Your task to perform on an android device: Open Google Chrome Image 0: 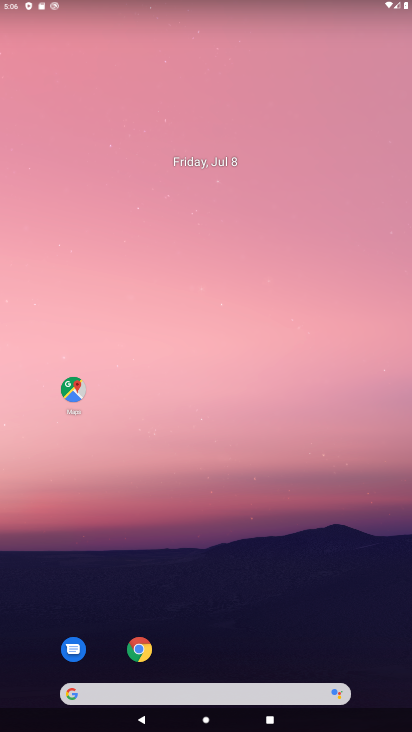
Step 0: drag from (311, 594) to (261, 113)
Your task to perform on an android device: Open Google Chrome Image 1: 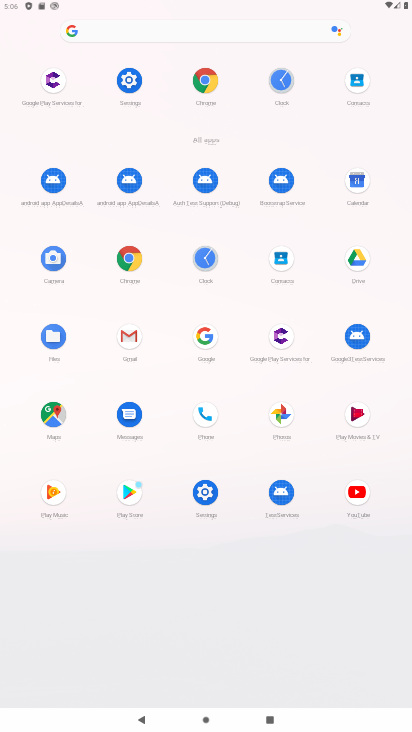
Step 1: click (130, 258)
Your task to perform on an android device: Open Google Chrome Image 2: 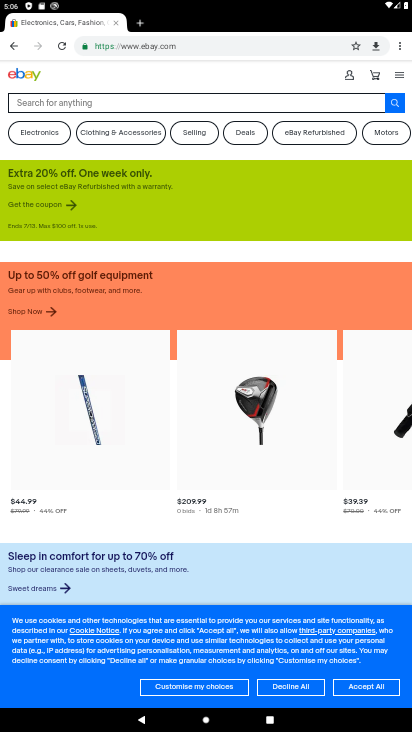
Step 2: task complete